Your task to perform on an android device: uninstall "Google Play services" Image 0: 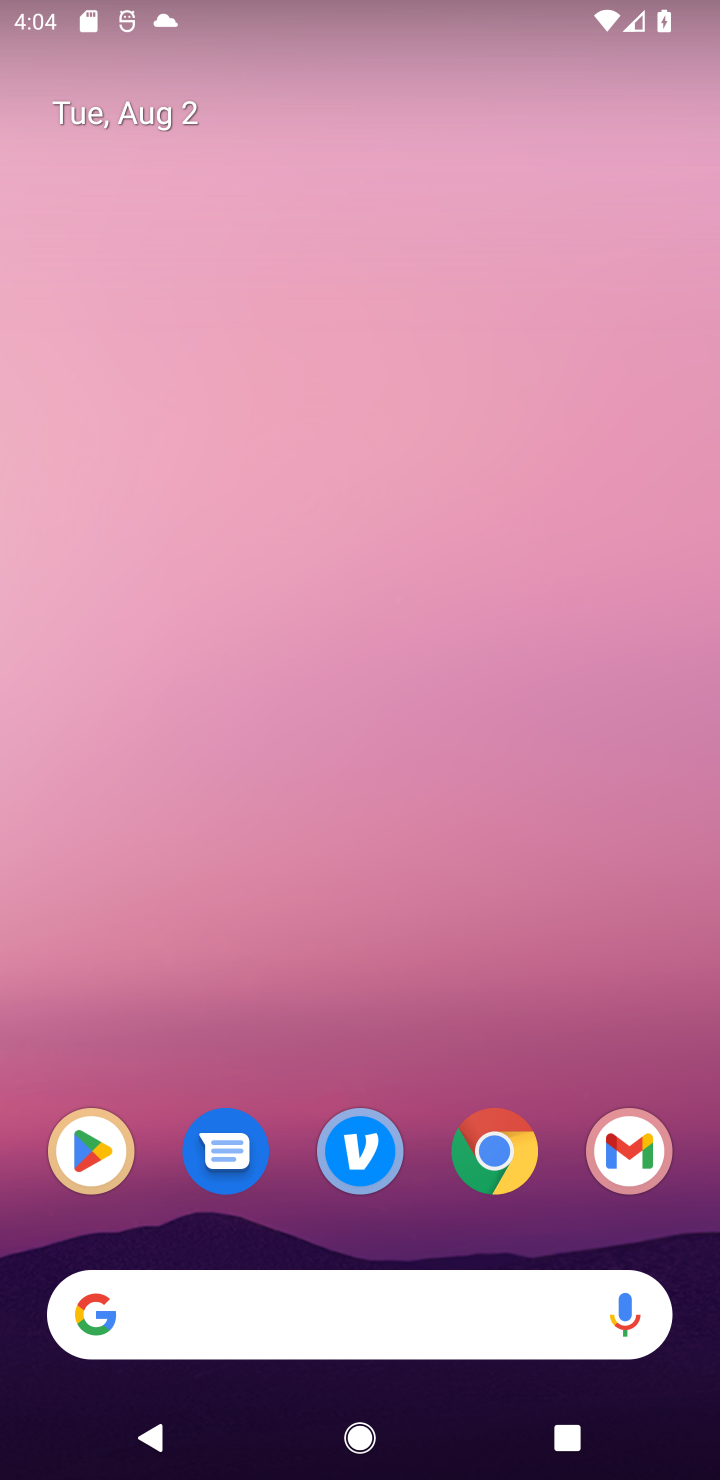
Step 0: drag from (431, 1282) to (511, 420)
Your task to perform on an android device: uninstall "Google Play services" Image 1: 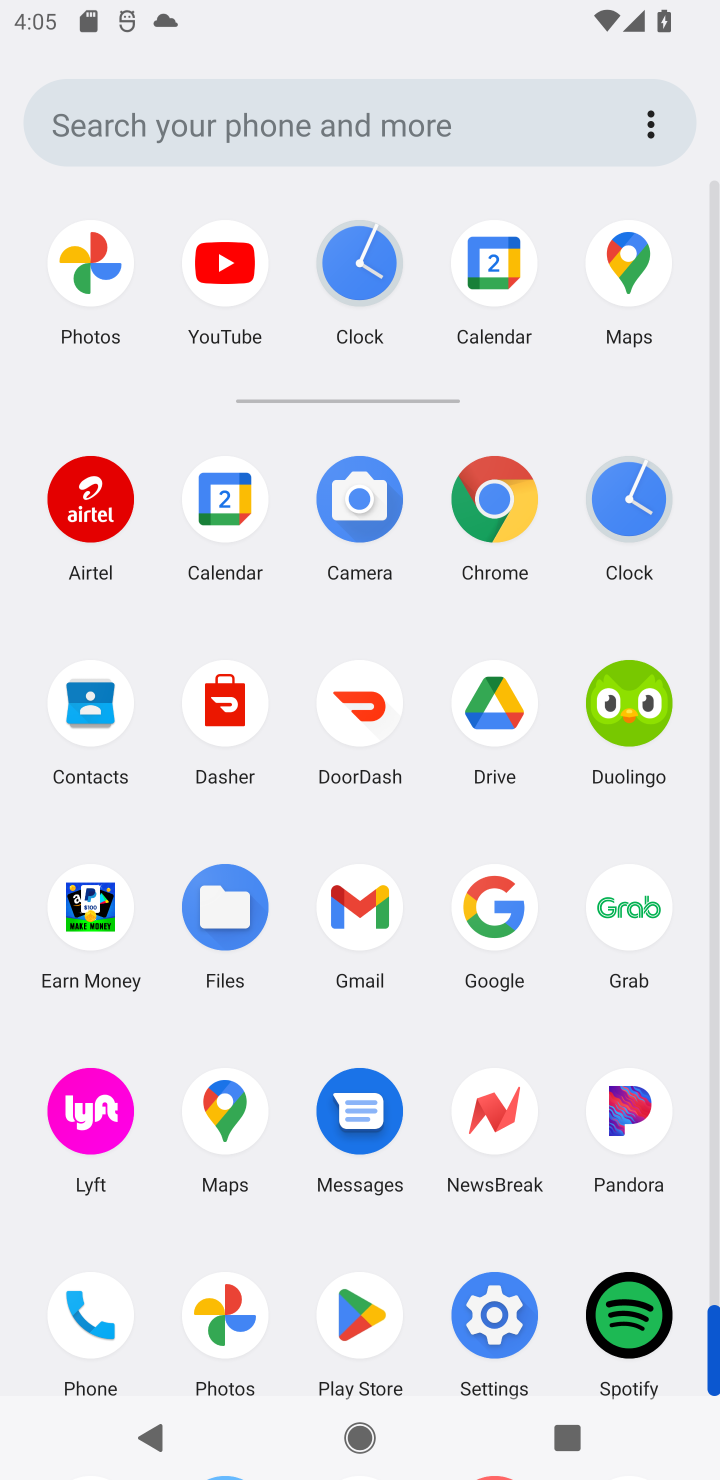
Step 1: click (360, 1343)
Your task to perform on an android device: uninstall "Google Play services" Image 2: 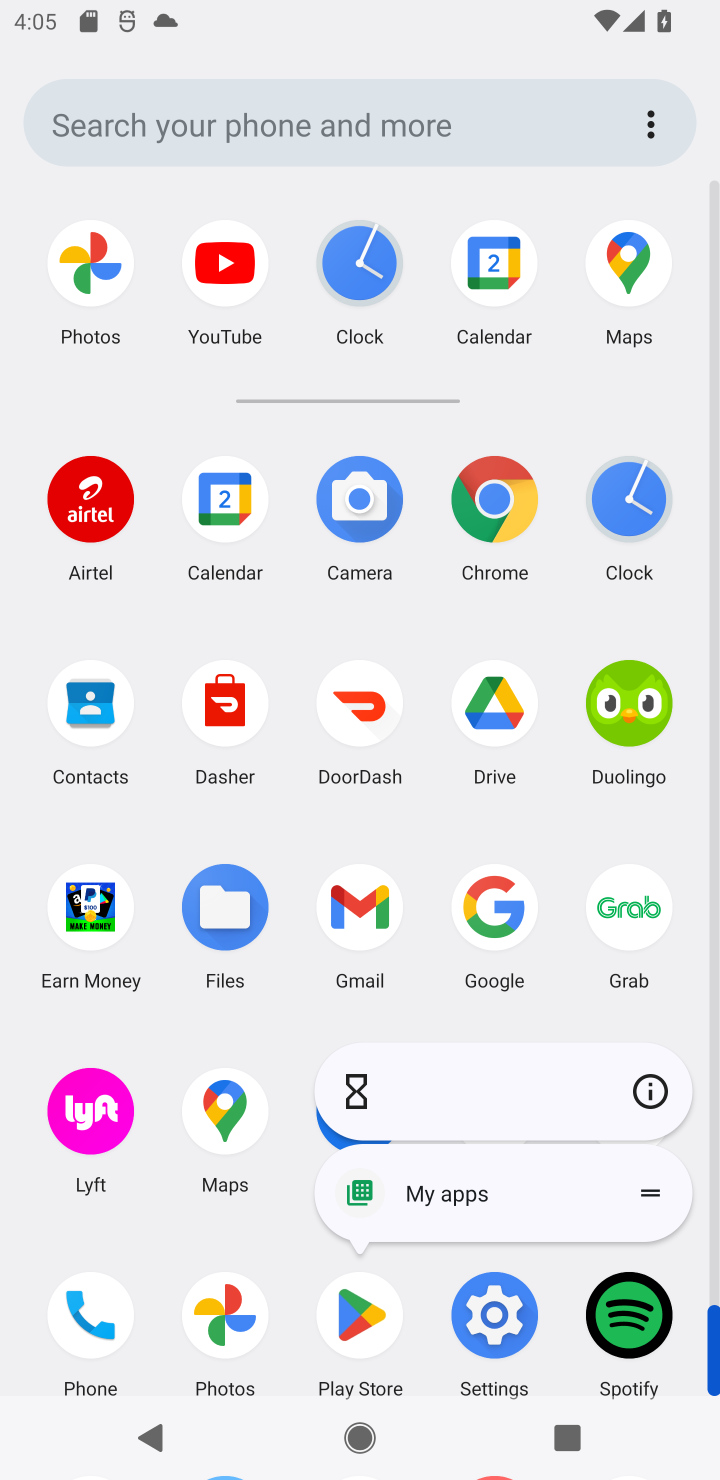
Step 2: click (359, 1345)
Your task to perform on an android device: uninstall "Google Play services" Image 3: 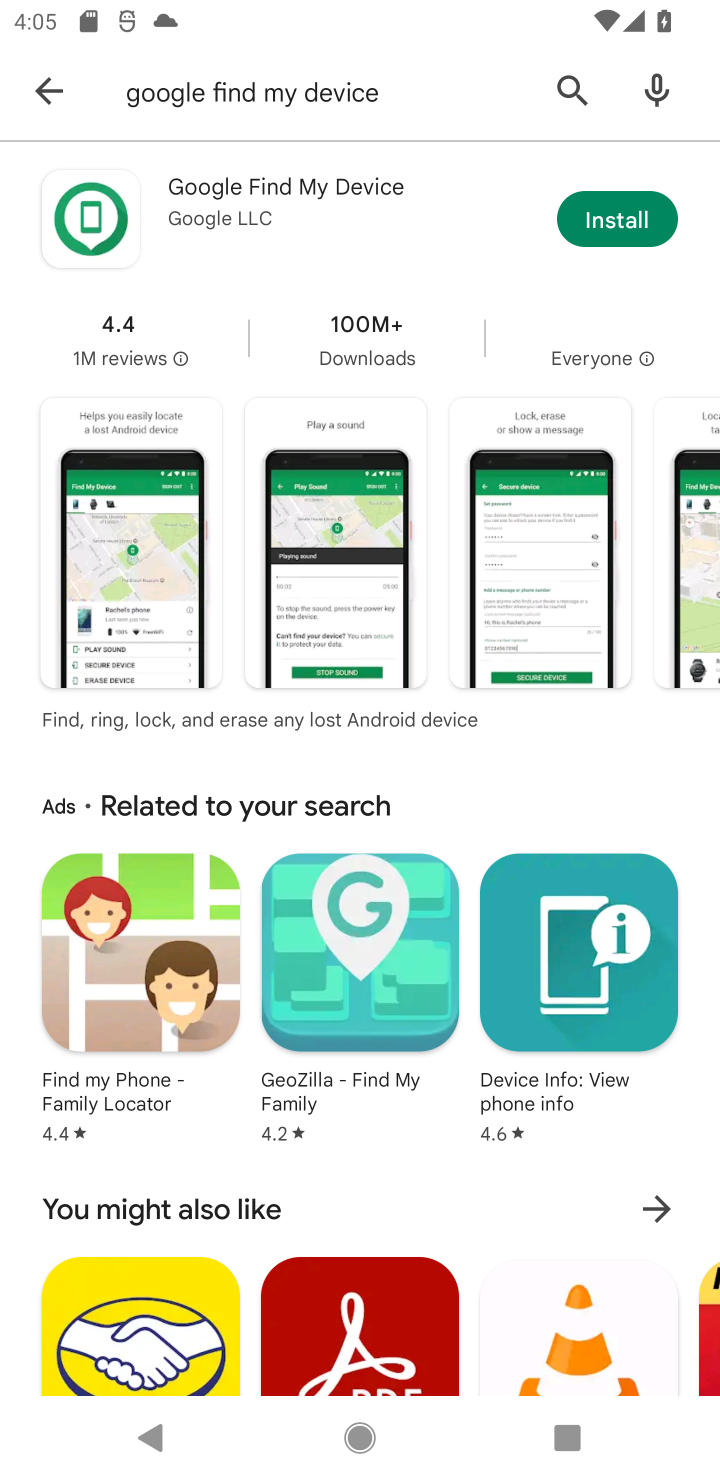
Step 3: click (51, 106)
Your task to perform on an android device: uninstall "Google Play services" Image 4: 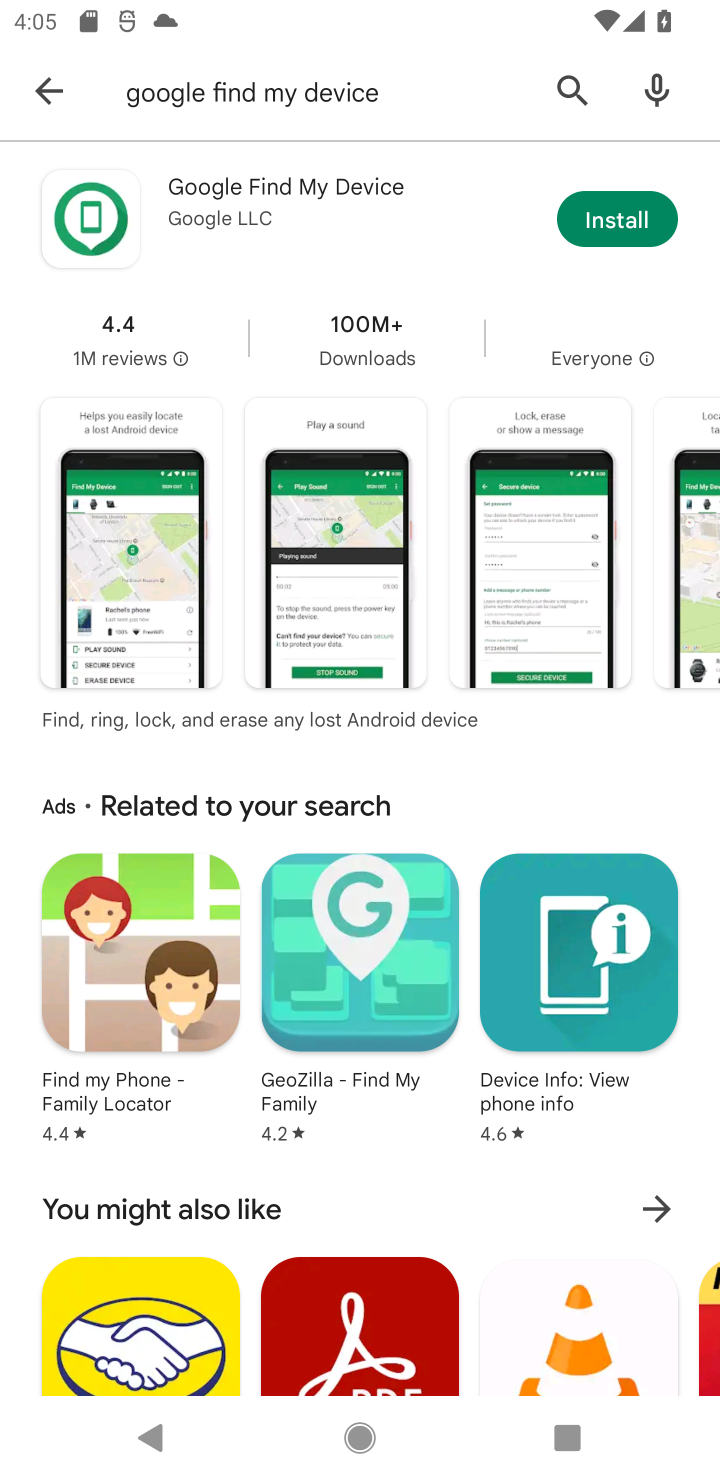
Step 4: click (46, 75)
Your task to perform on an android device: uninstall "Google Play services" Image 5: 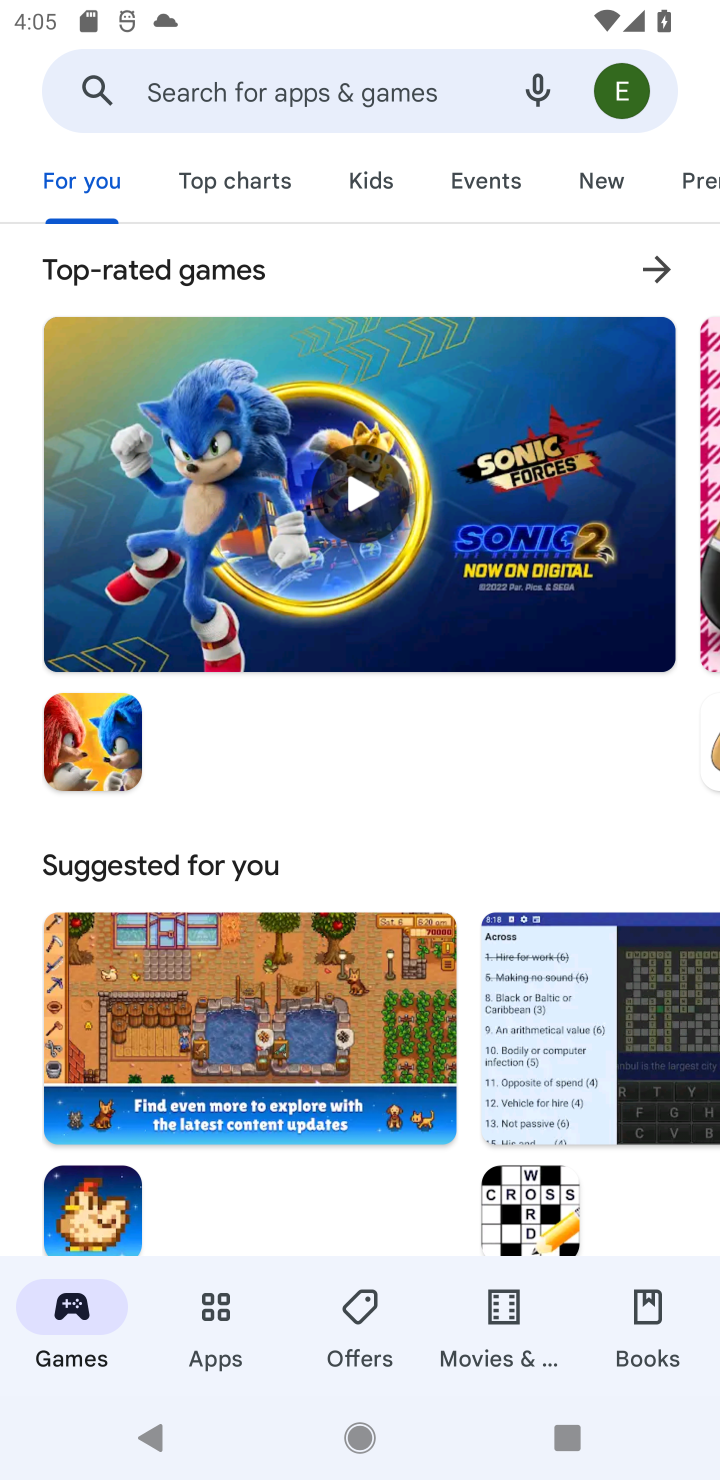
Step 5: click (248, 81)
Your task to perform on an android device: uninstall "Google Play services" Image 6: 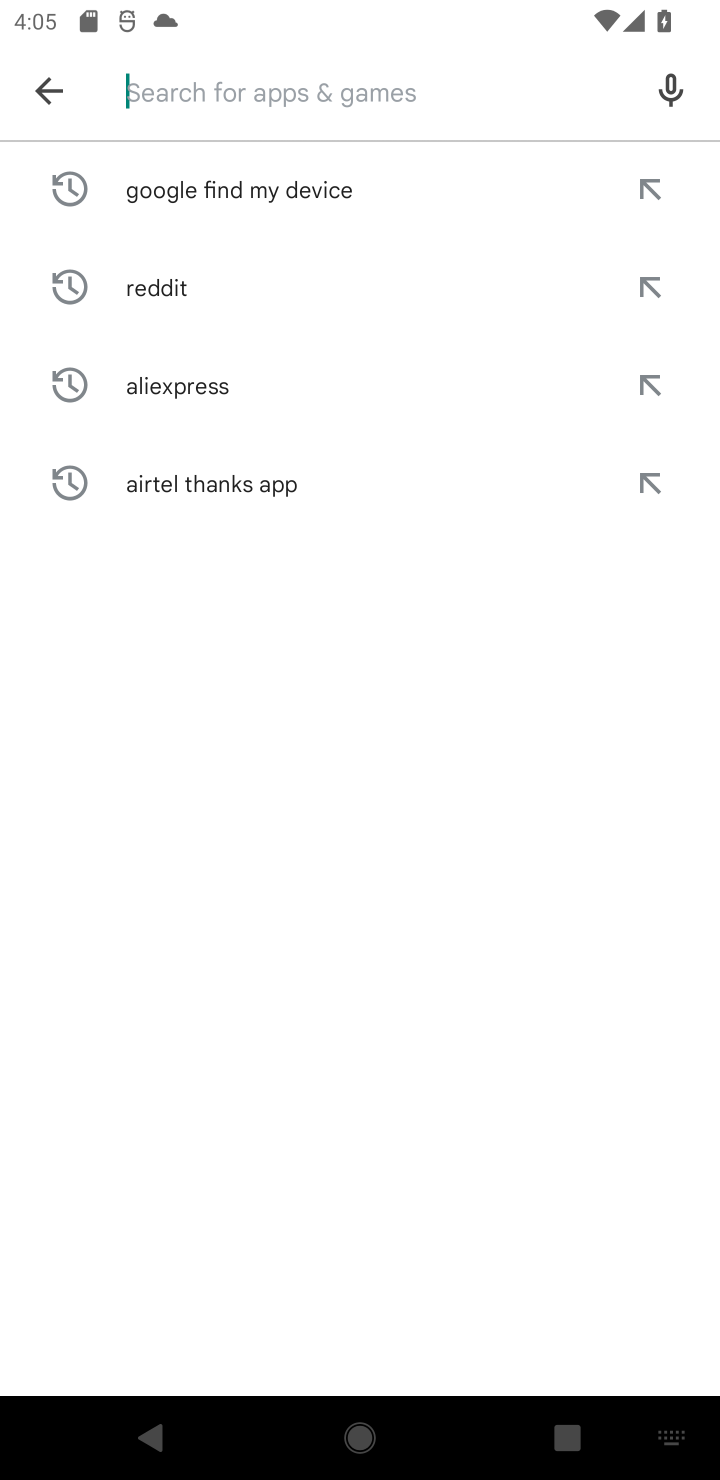
Step 6: type "Google Play services"
Your task to perform on an android device: uninstall "Google Play services" Image 7: 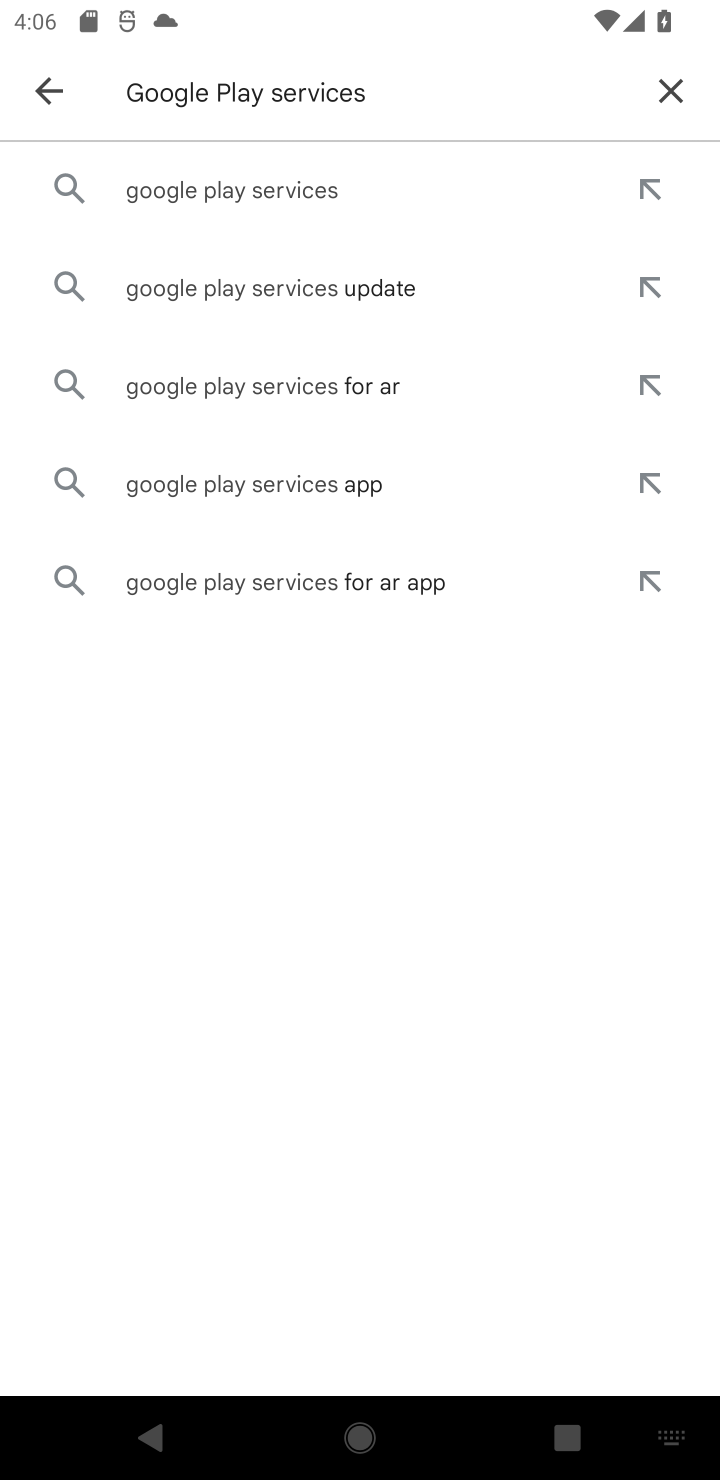
Step 7: click (183, 183)
Your task to perform on an android device: uninstall "Google Play services" Image 8: 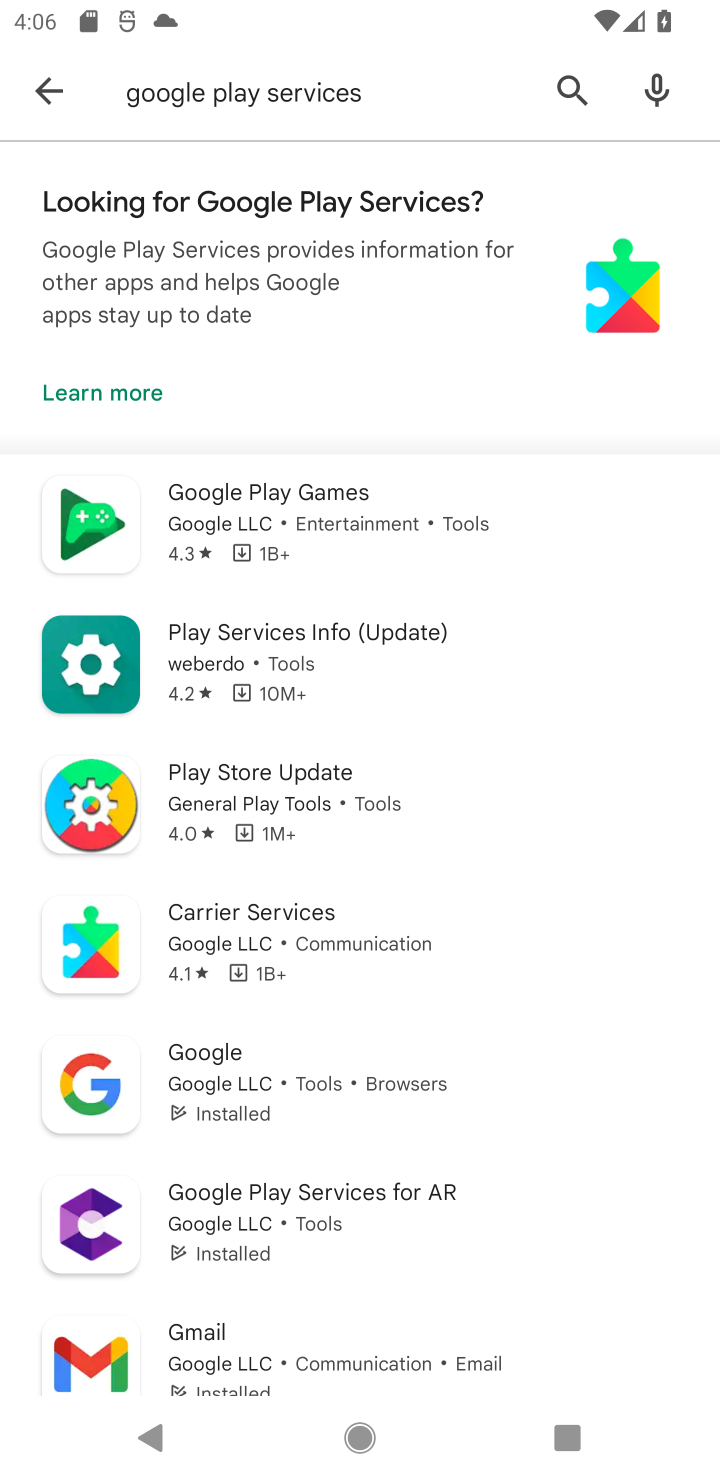
Step 8: task complete